Your task to perform on an android device: move a message to another label in the gmail app Image 0: 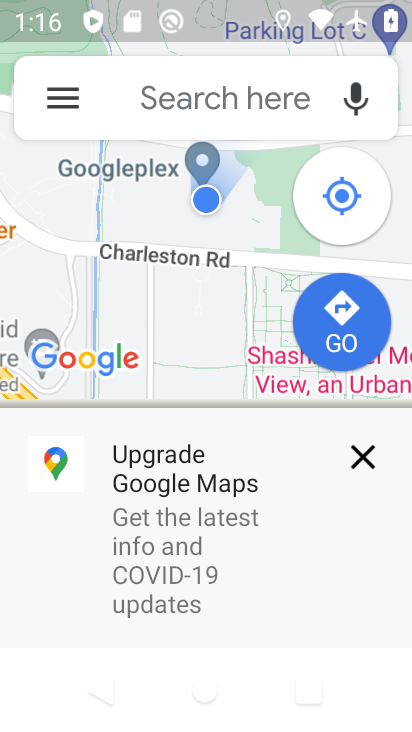
Step 0: press home button
Your task to perform on an android device: move a message to another label in the gmail app Image 1: 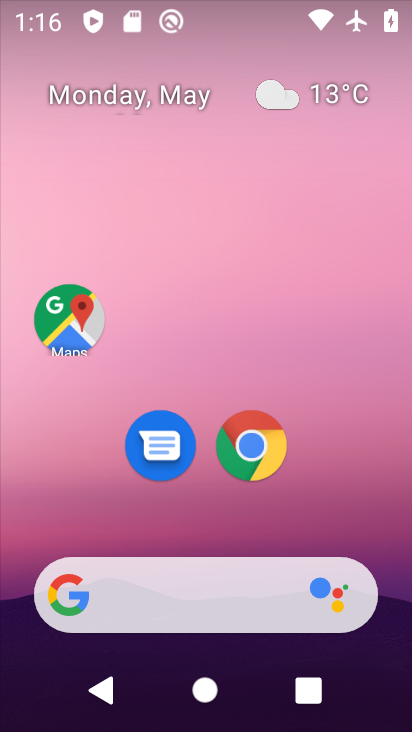
Step 1: drag from (391, 636) to (376, 370)
Your task to perform on an android device: move a message to another label in the gmail app Image 2: 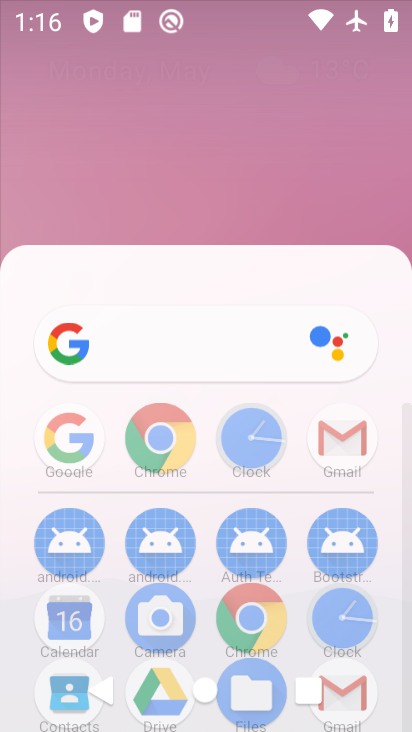
Step 2: click (263, 50)
Your task to perform on an android device: move a message to another label in the gmail app Image 3: 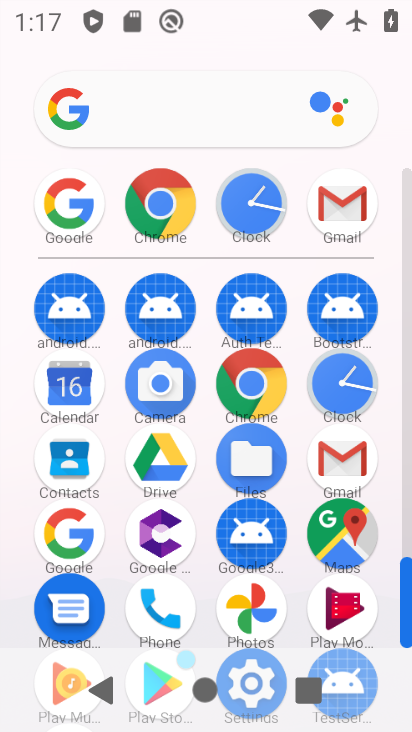
Step 3: click (351, 466)
Your task to perform on an android device: move a message to another label in the gmail app Image 4: 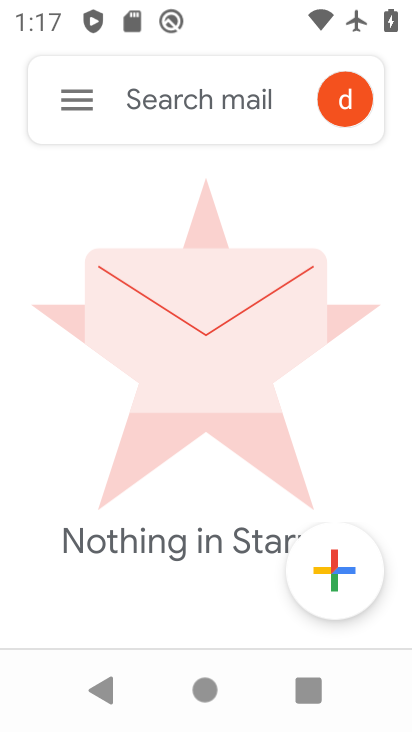
Step 4: task complete